Your task to perform on an android device: Go to ESPN.com Image 0: 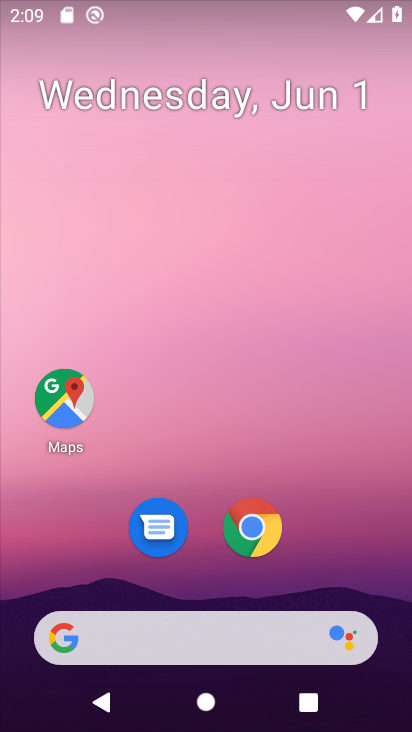
Step 0: click (256, 513)
Your task to perform on an android device: Go to ESPN.com Image 1: 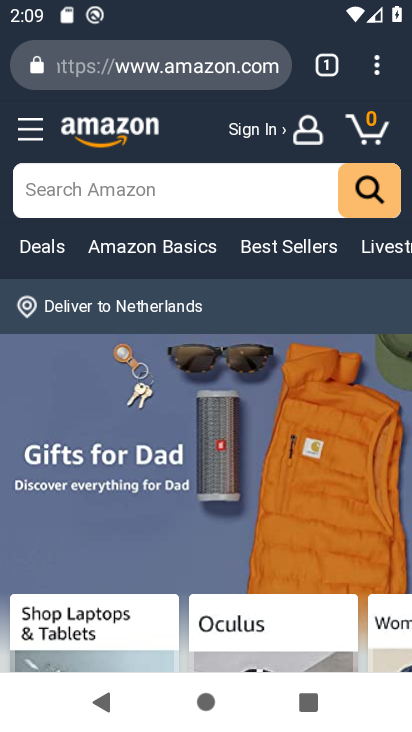
Step 1: click (173, 62)
Your task to perform on an android device: Go to ESPN.com Image 2: 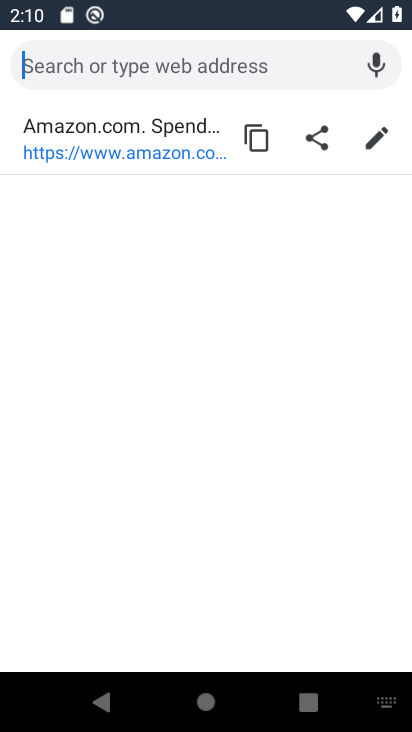
Step 2: type "ESPN.com"
Your task to perform on an android device: Go to ESPN.com Image 3: 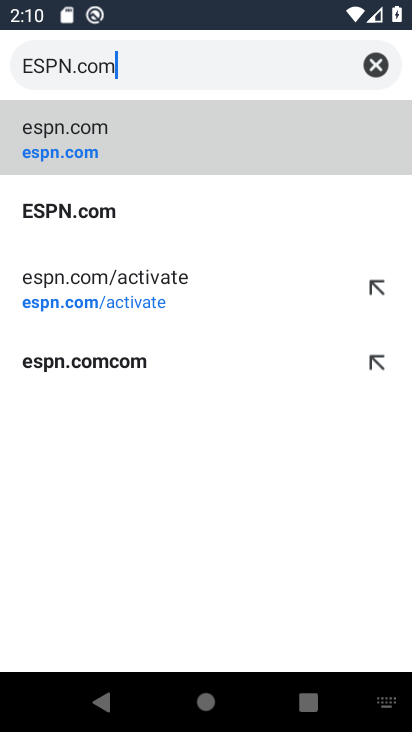
Step 3: click (86, 164)
Your task to perform on an android device: Go to ESPN.com Image 4: 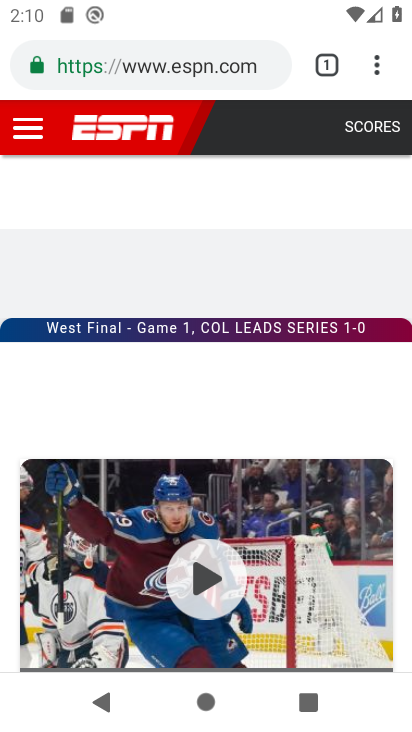
Step 4: task complete